Your task to perform on an android device: Open Wikipedia Image 0: 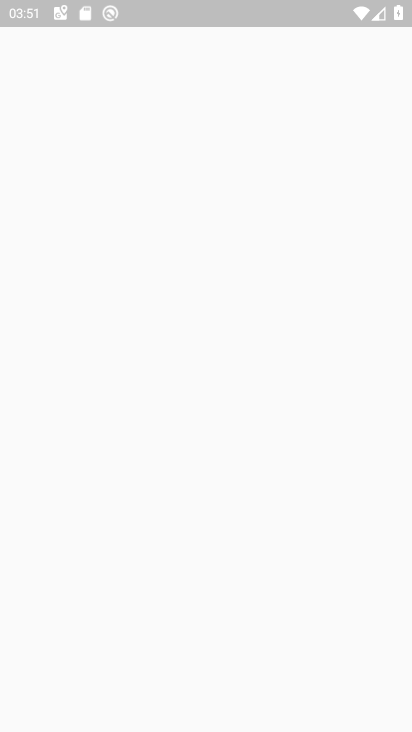
Step 0: drag from (321, 585) to (329, 272)
Your task to perform on an android device: Open Wikipedia Image 1: 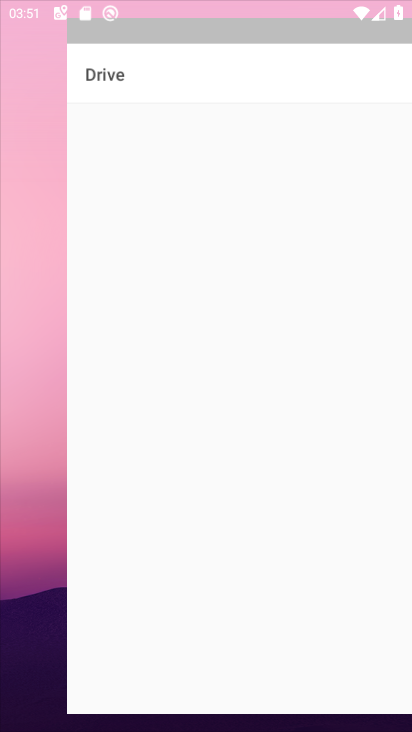
Step 1: press home button
Your task to perform on an android device: Open Wikipedia Image 2: 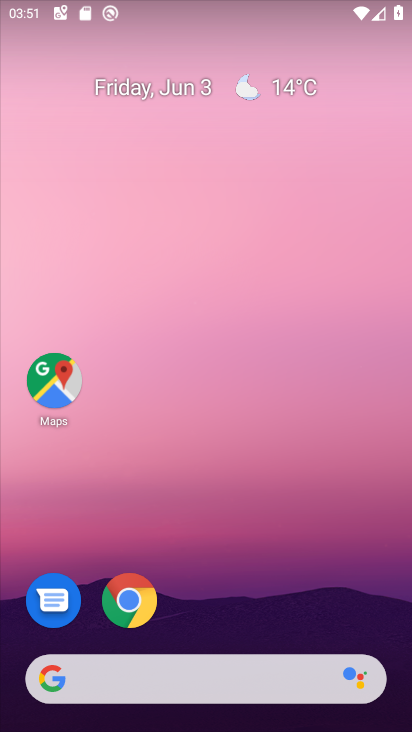
Step 2: click (129, 600)
Your task to perform on an android device: Open Wikipedia Image 3: 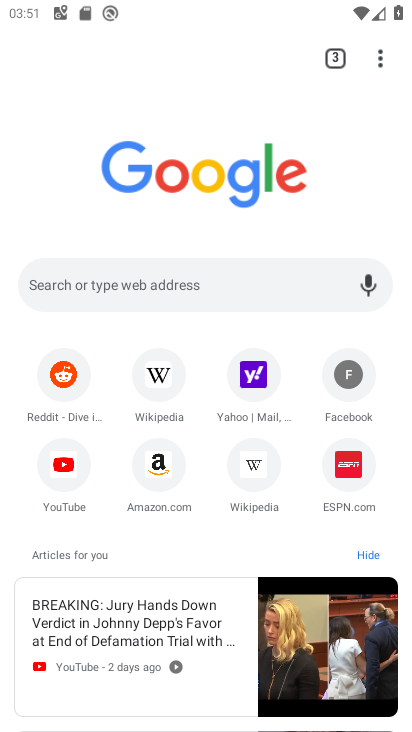
Step 3: click (168, 386)
Your task to perform on an android device: Open Wikipedia Image 4: 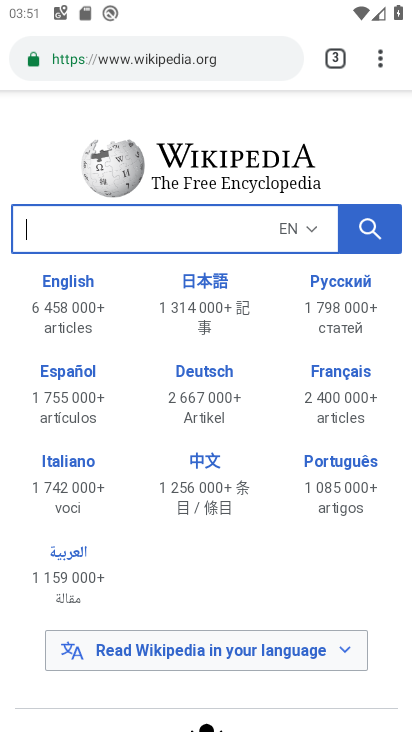
Step 4: task complete